Your task to perform on an android device: Go to calendar. Show me events next week Image 0: 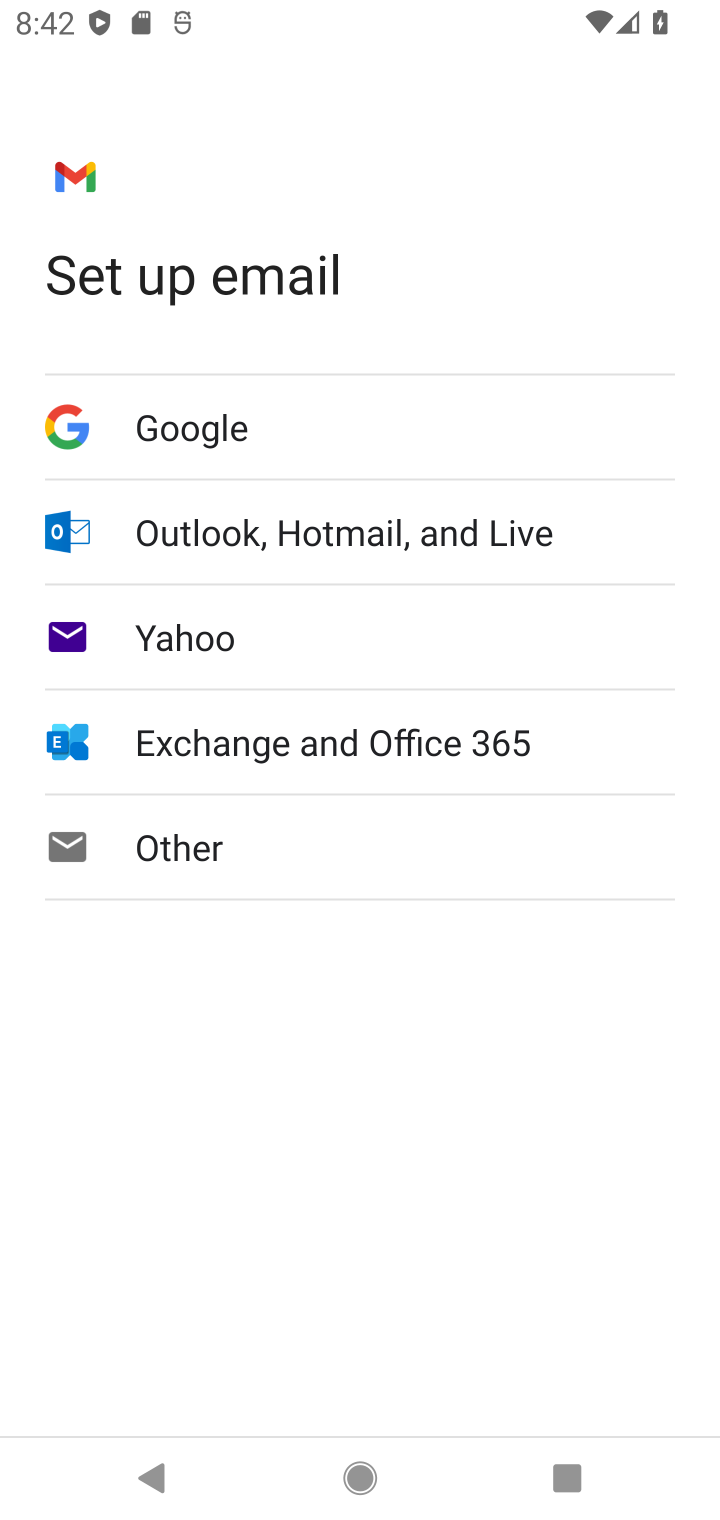
Step 0: press home button
Your task to perform on an android device: Go to calendar. Show me events next week Image 1: 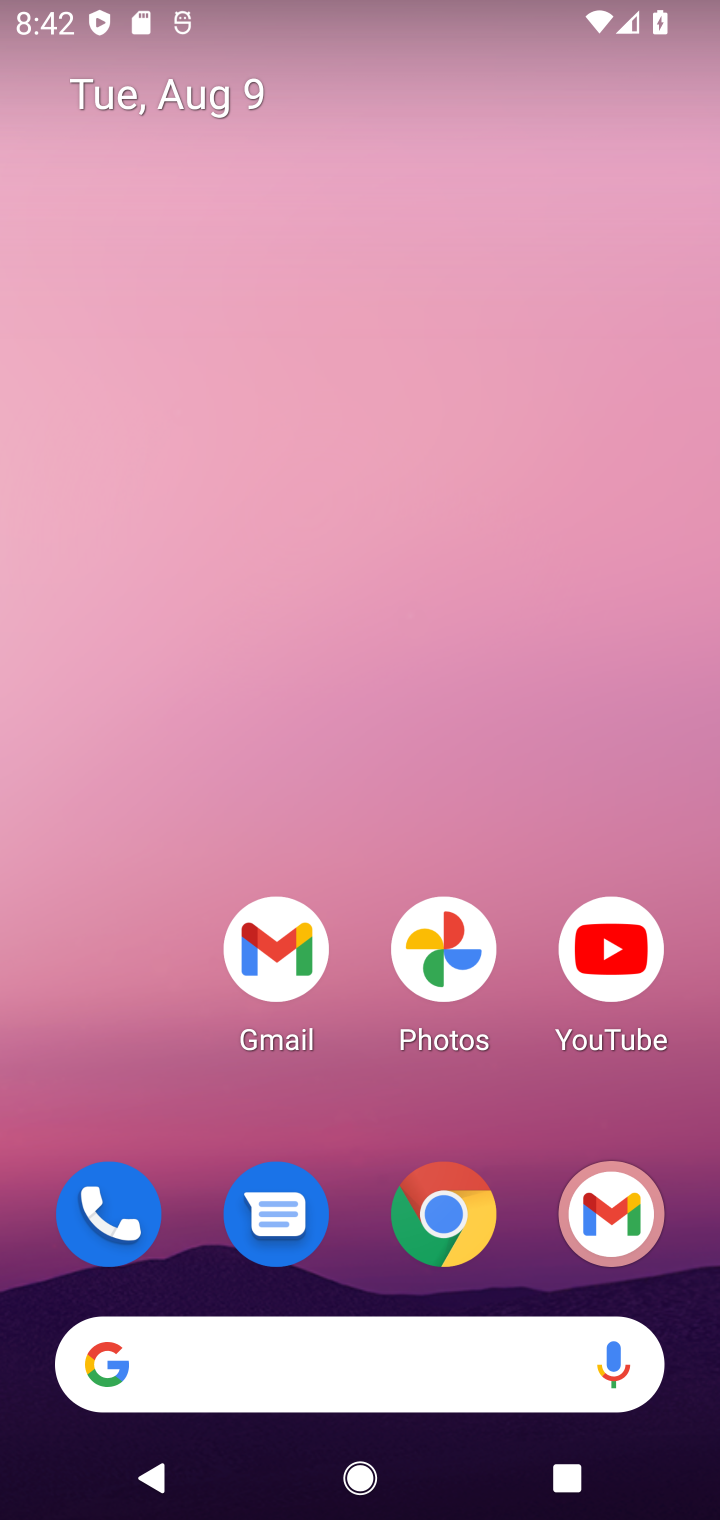
Step 1: drag from (38, 1462) to (475, 353)
Your task to perform on an android device: Go to calendar. Show me events next week Image 2: 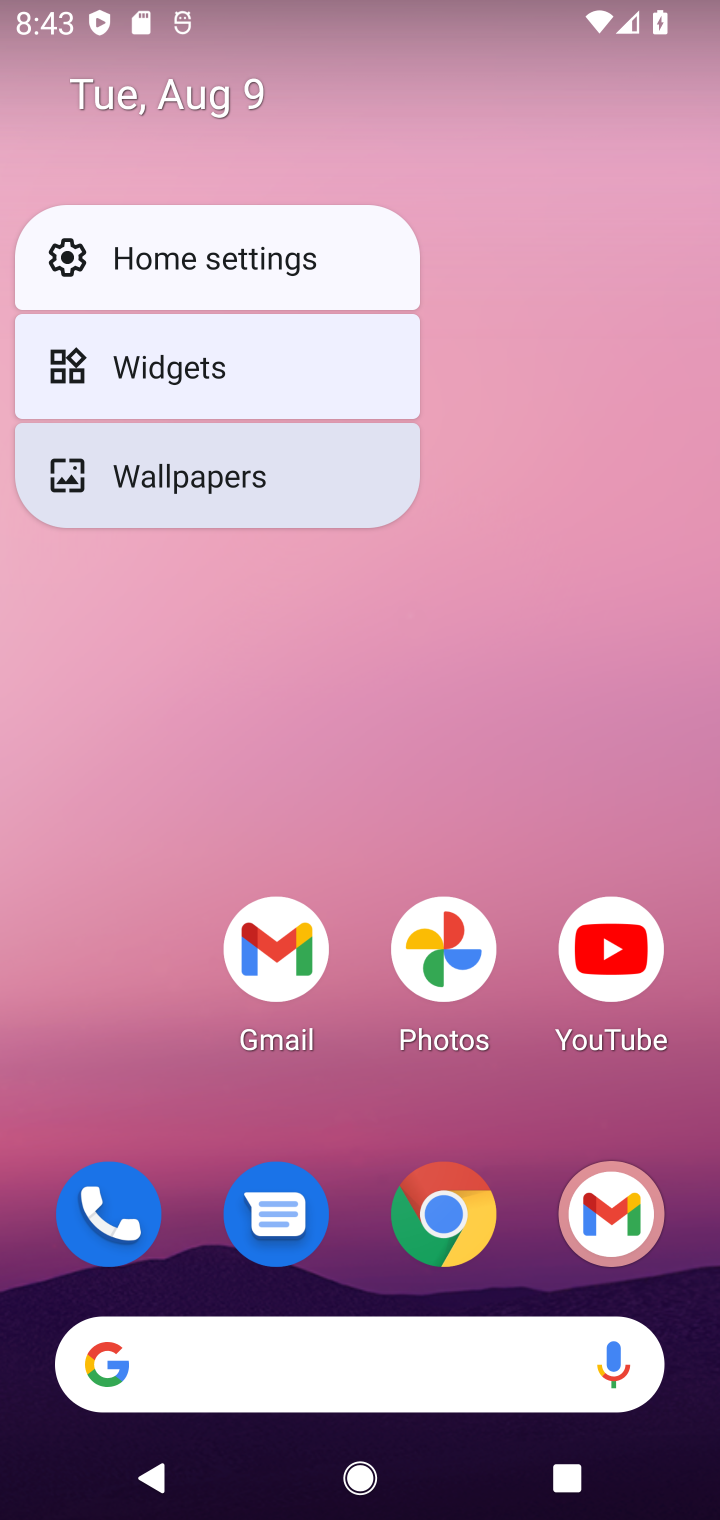
Step 2: drag from (32, 1418) to (509, 269)
Your task to perform on an android device: Go to calendar. Show me events next week Image 3: 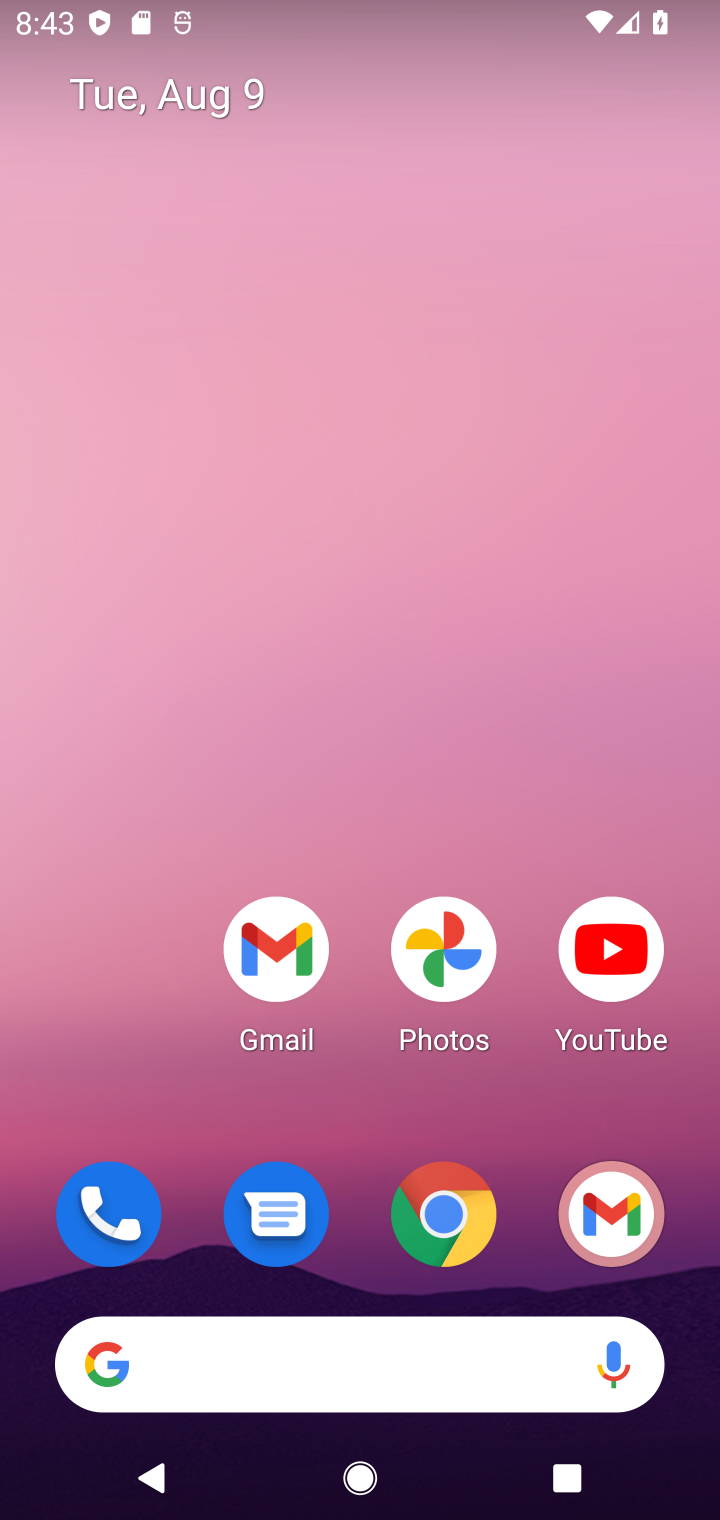
Step 3: drag from (113, 1372) to (395, 143)
Your task to perform on an android device: Go to calendar. Show me events next week Image 4: 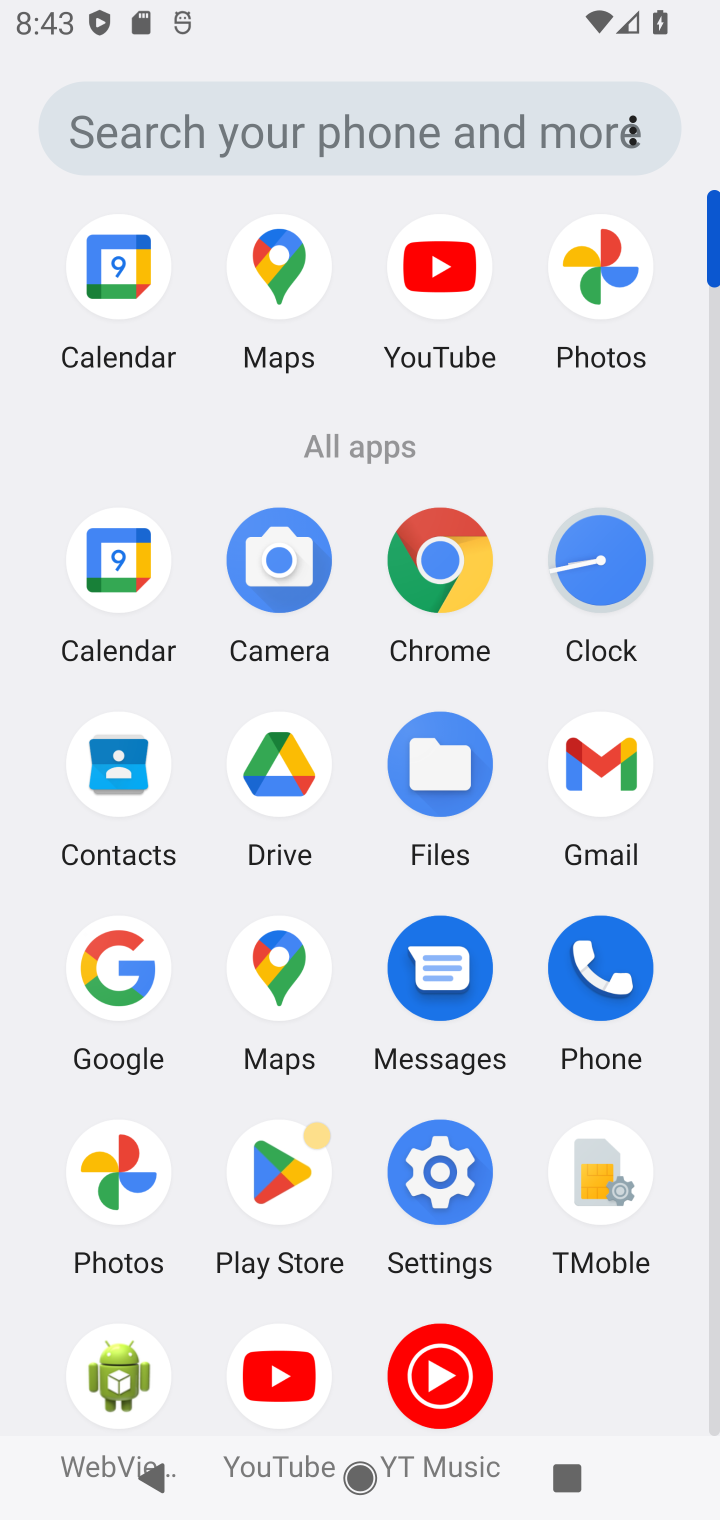
Step 4: click (155, 606)
Your task to perform on an android device: Go to calendar. Show me events next week Image 5: 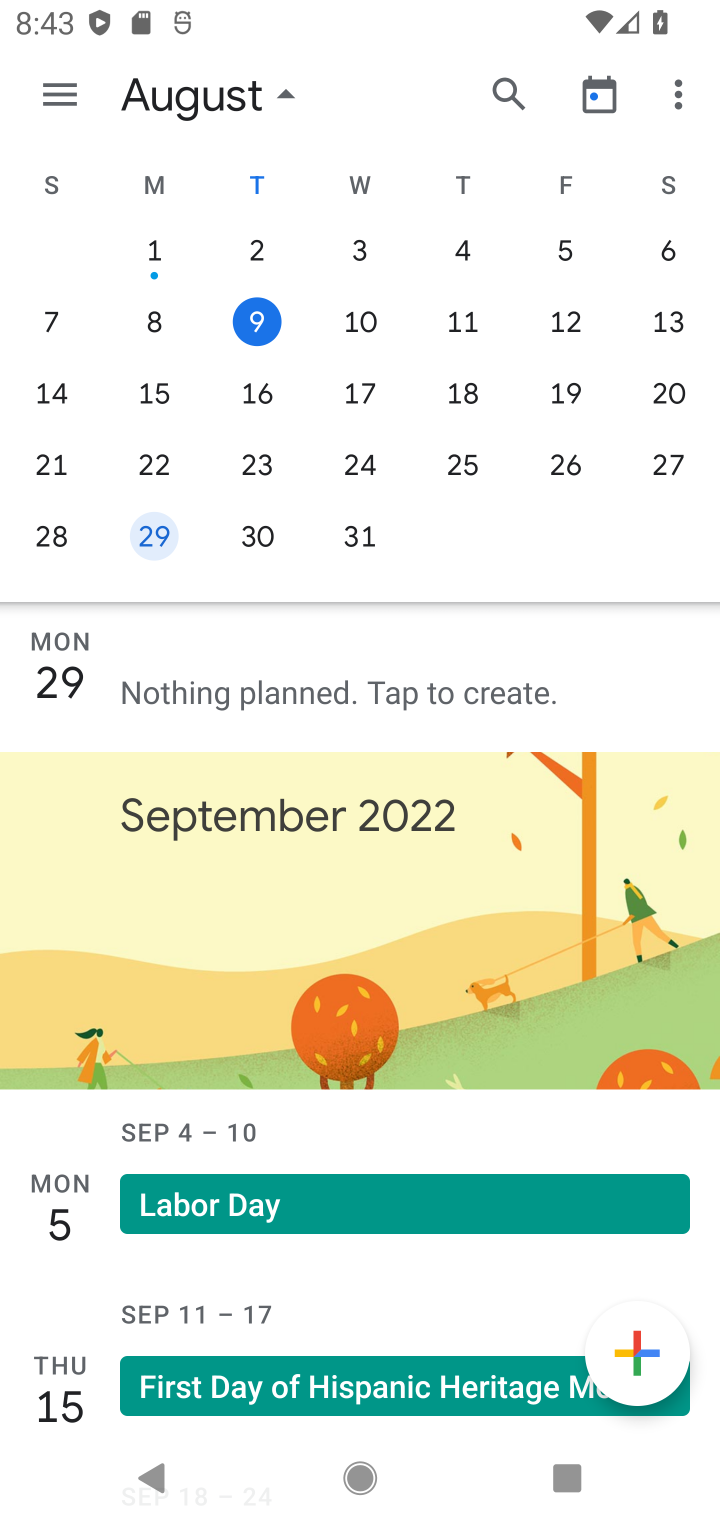
Step 5: task complete